Your task to perform on an android device: Search for sushi restaurants on Maps Image 0: 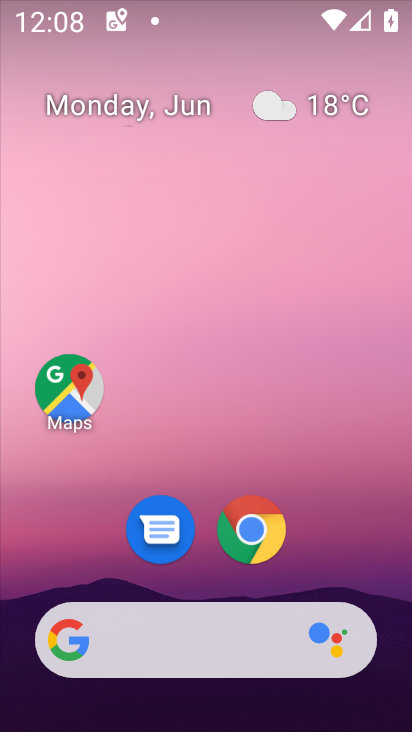
Step 0: drag from (372, 538) to (391, 45)
Your task to perform on an android device: Search for sushi restaurants on Maps Image 1: 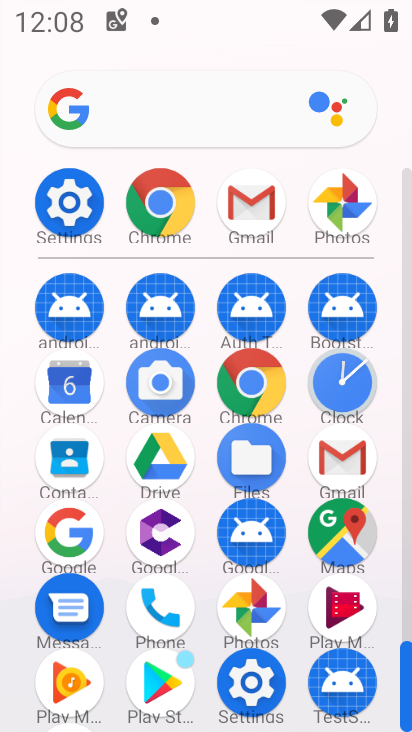
Step 1: click (350, 552)
Your task to perform on an android device: Search for sushi restaurants on Maps Image 2: 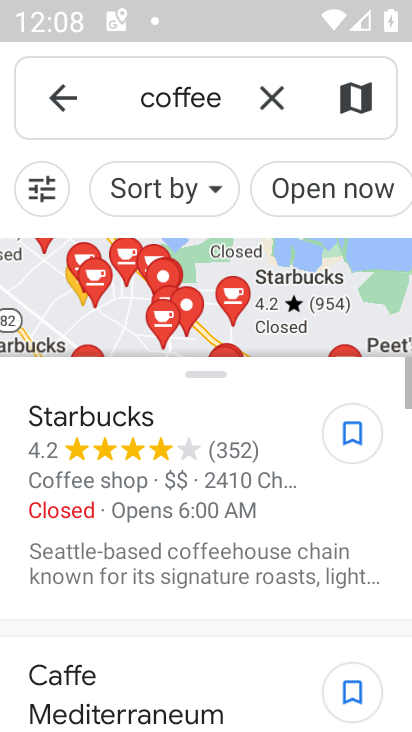
Step 2: click (255, 88)
Your task to perform on an android device: Search for sushi restaurants on Maps Image 3: 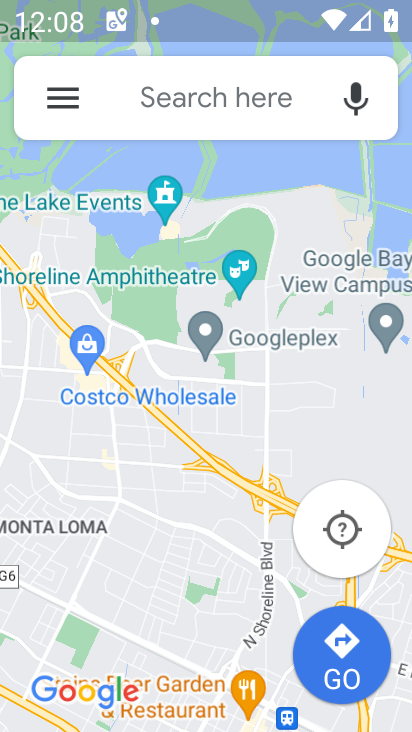
Step 3: click (189, 102)
Your task to perform on an android device: Search for sushi restaurants on Maps Image 4: 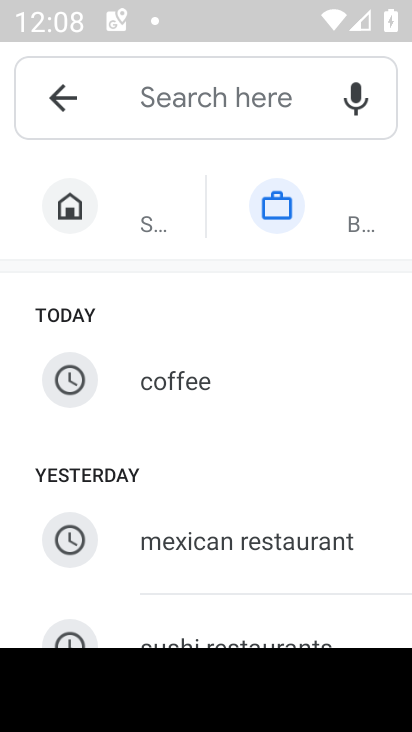
Step 4: drag from (221, 556) to (282, 8)
Your task to perform on an android device: Search for sushi restaurants on Maps Image 5: 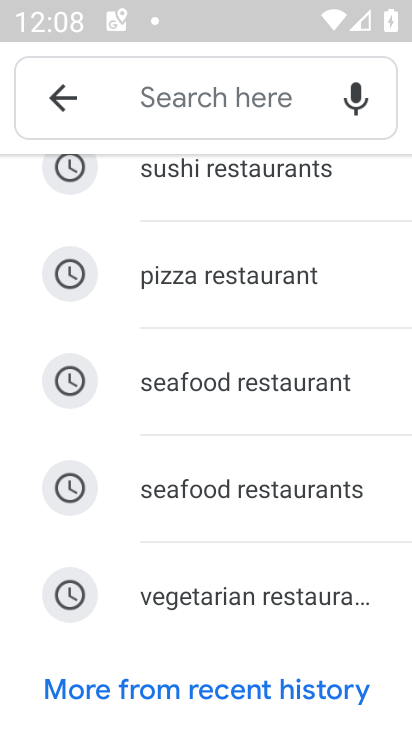
Step 5: drag from (258, 623) to (294, 0)
Your task to perform on an android device: Search for sushi restaurants on Maps Image 6: 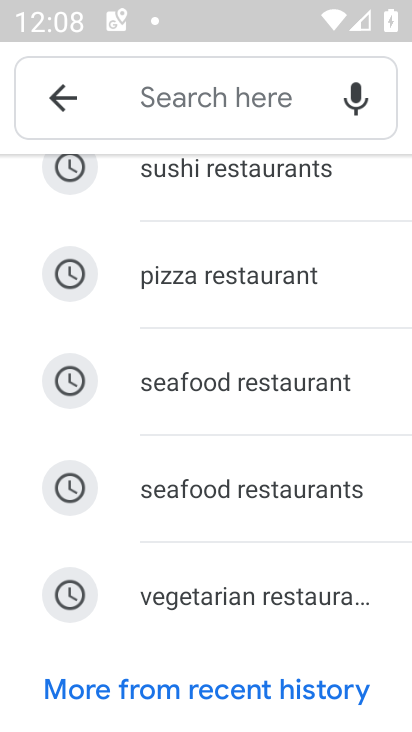
Step 6: click (158, 111)
Your task to perform on an android device: Search for sushi restaurants on Maps Image 7: 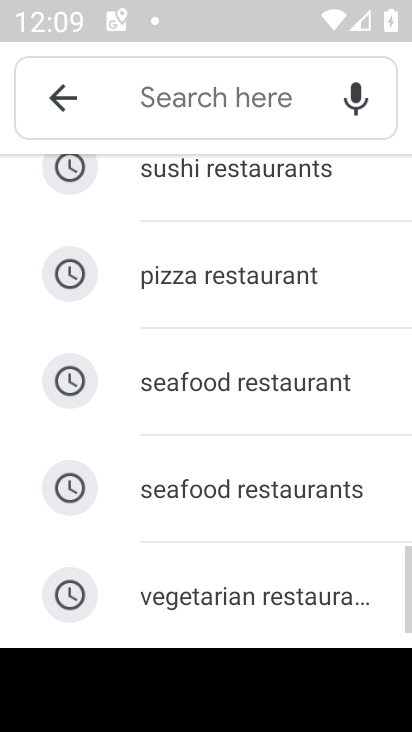
Step 7: click (265, 177)
Your task to perform on an android device: Search for sushi restaurants on Maps Image 8: 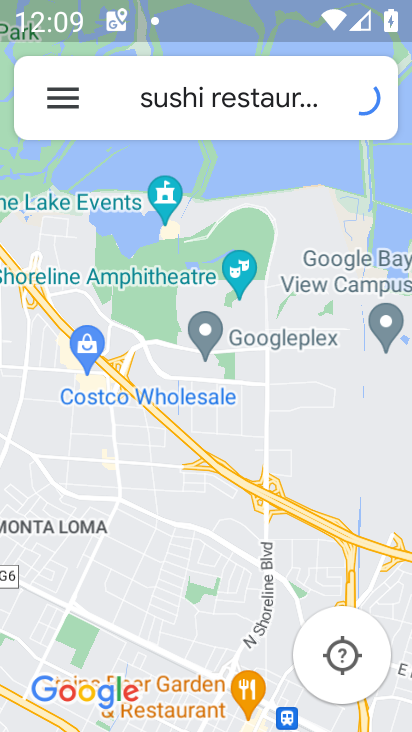
Step 8: task complete